Your task to perform on an android device: Play the last video I watched on Youtube Image 0: 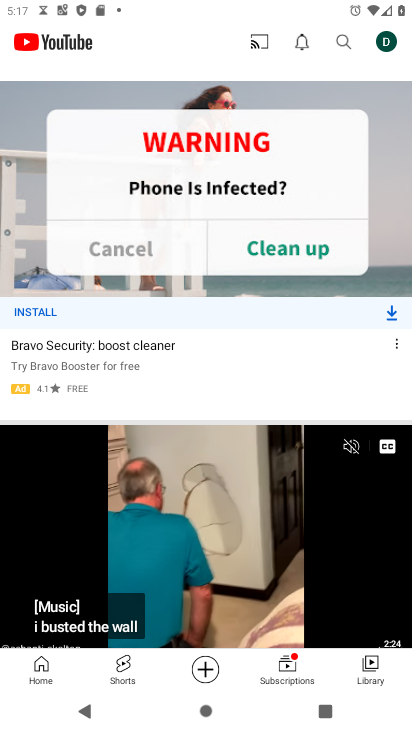
Step 0: click (370, 665)
Your task to perform on an android device: Play the last video I watched on Youtube Image 1: 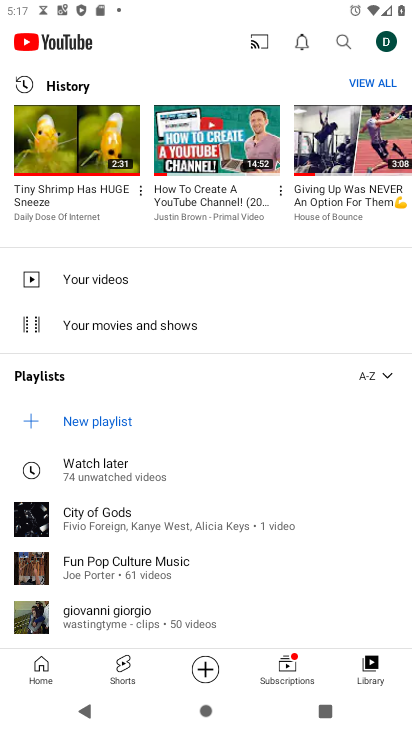
Step 1: click (81, 157)
Your task to perform on an android device: Play the last video I watched on Youtube Image 2: 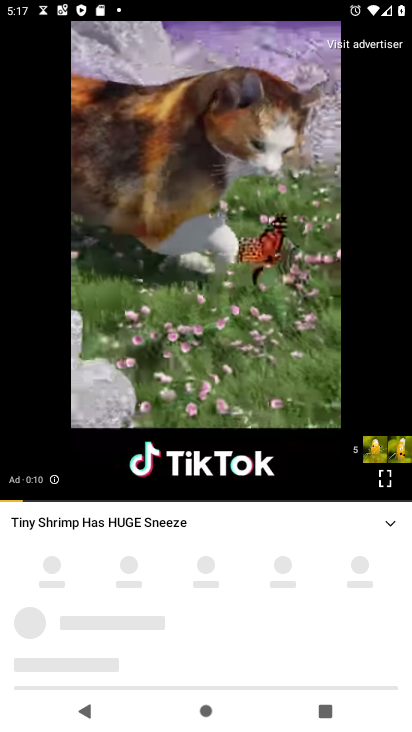
Step 2: task complete